Your task to perform on an android device: Check the weather Image 0: 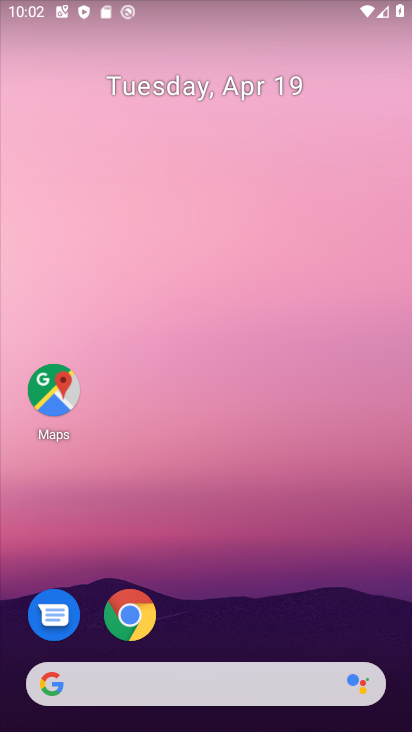
Step 0: drag from (218, 500) to (271, 2)
Your task to perform on an android device: Check the weather Image 1: 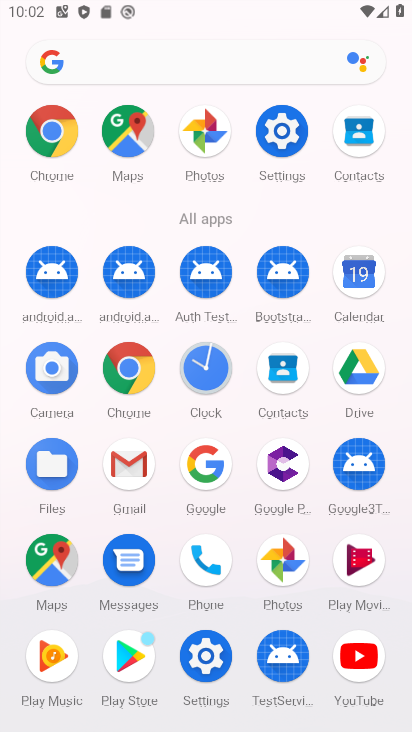
Step 1: click (128, 366)
Your task to perform on an android device: Check the weather Image 2: 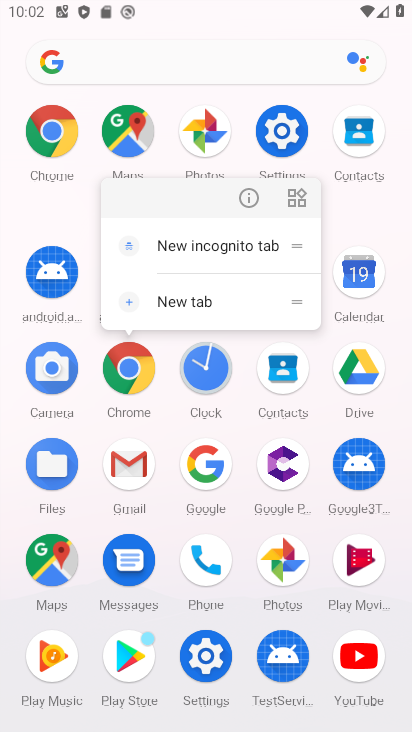
Step 2: click (249, 191)
Your task to perform on an android device: Check the weather Image 3: 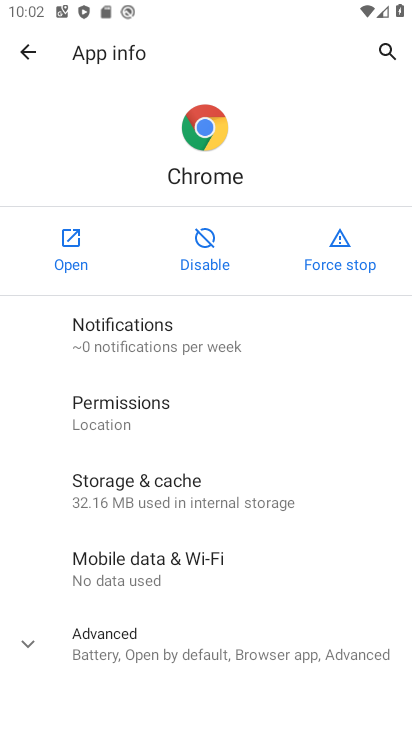
Step 3: click (71, 248)
Your task to perform on an android device: Check the weather Image 4: 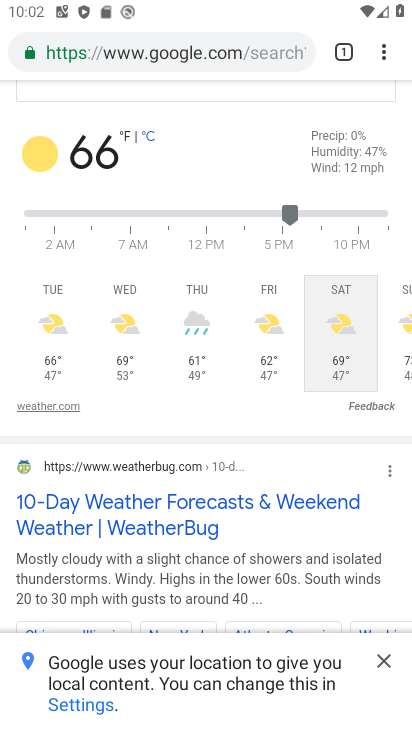
Step 4: task complete